Your task to perform on an android device: Go to Yahoo.com Image 0: 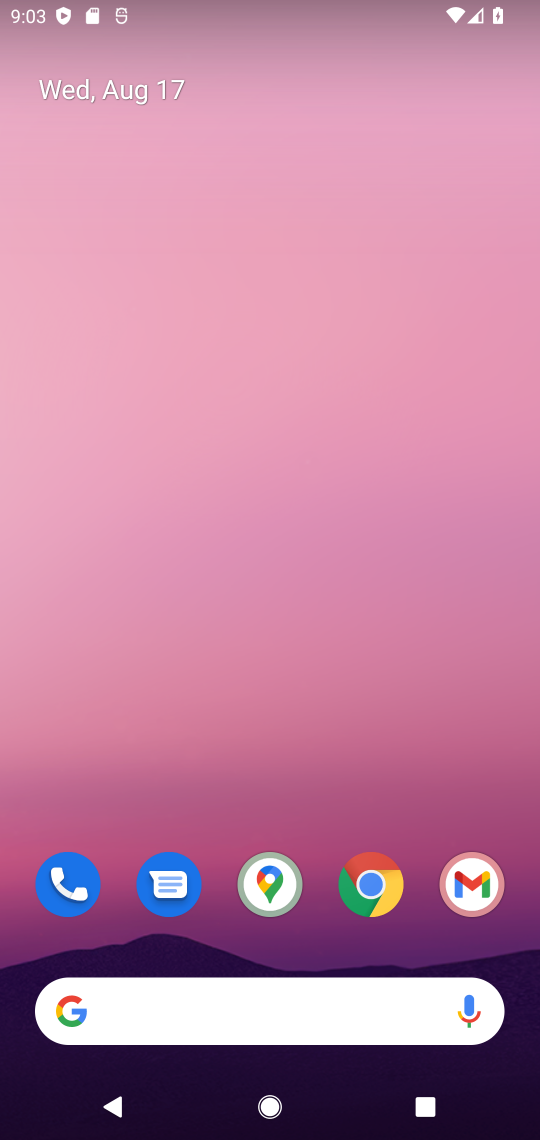
Step 0: click (348, 893)
Your task to perform on an android device: Go to Yahoo.com Image 1: 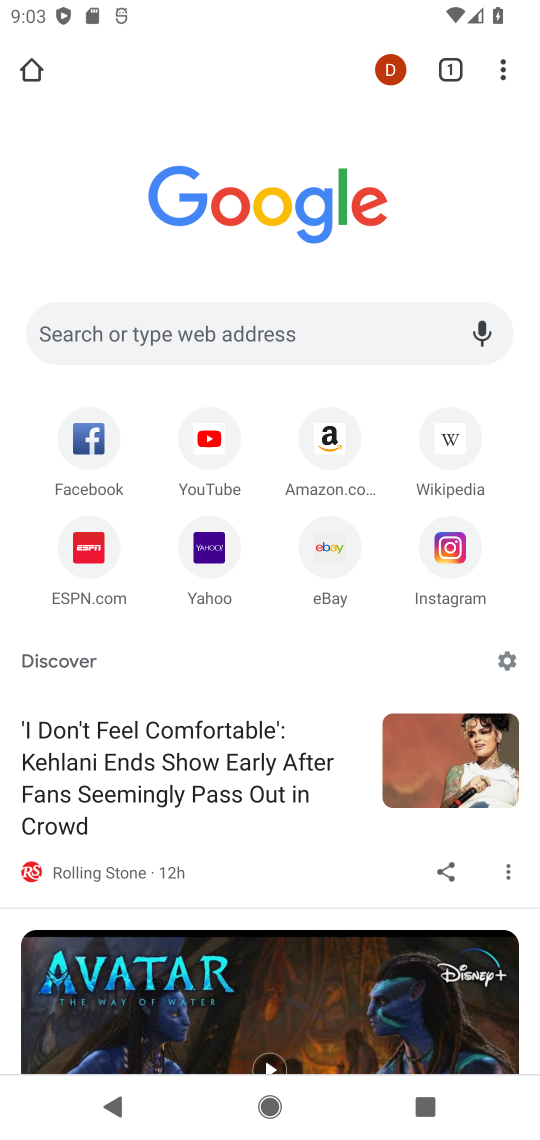
Step 1: click (212, 576)
Your task to perform on an android device: Go to Yahoo.com Image 2: 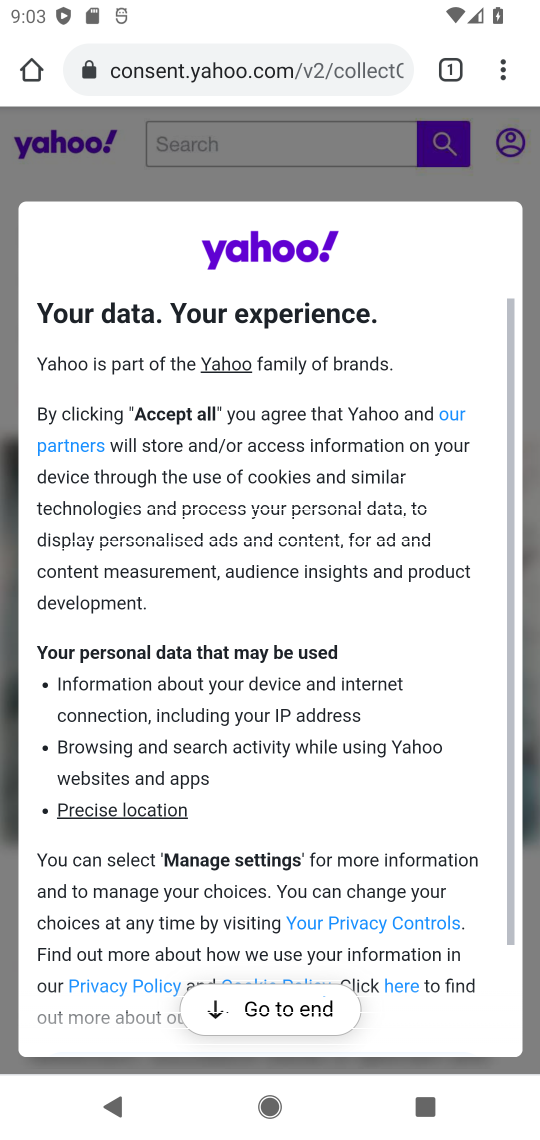
Step 2: task complete